Your task to perform on an android device: Go to display settings Image 0: 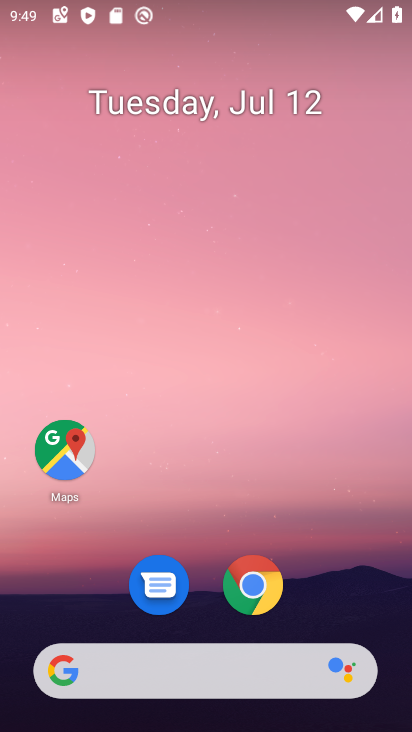
Step 0: drag from (191, 687) to (270, 50)
Your task to perform on an android device: Go to display settings Image 1: 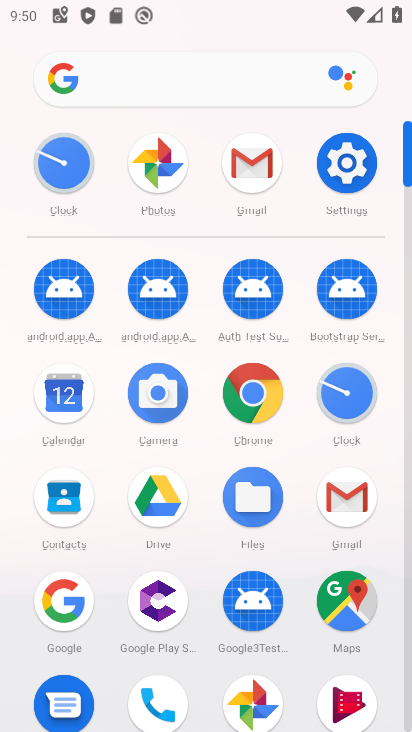
Step 1: click (346, 161)
Your task to perform on an android device: Go to display settings Image 2: 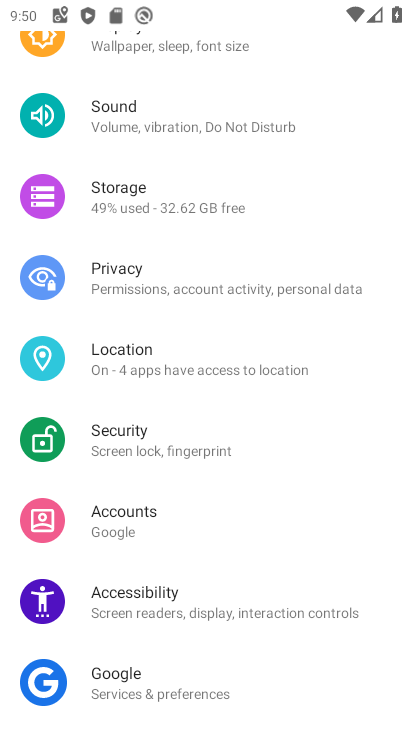
Step 2: drag from (302, 141) to (295, 502)
Your task to perform on an android device: Go to display settings Image 3: 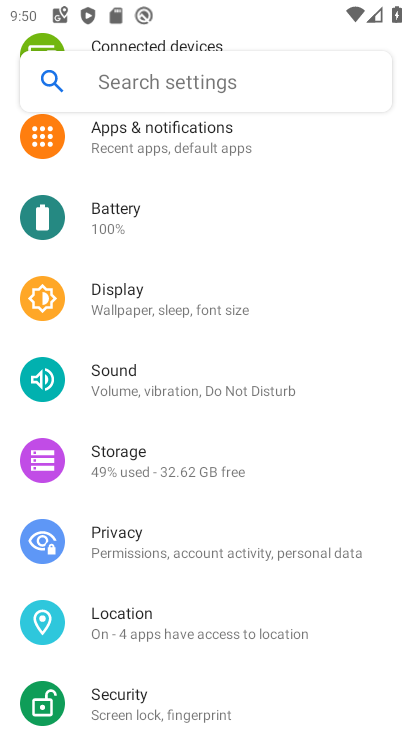
Step 3: click (147, 302)
Your task to perform on an android device: Go to display settings Image 4: 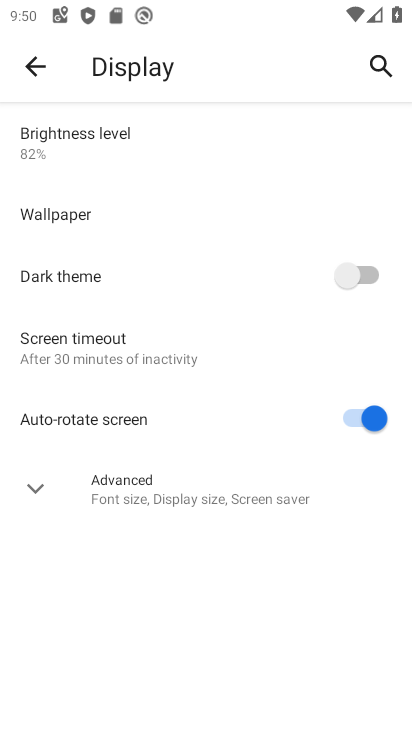
Step 4: task complete